Your task to perform on an android device: Open Youtube and go to the subscriptions tab Image 0: 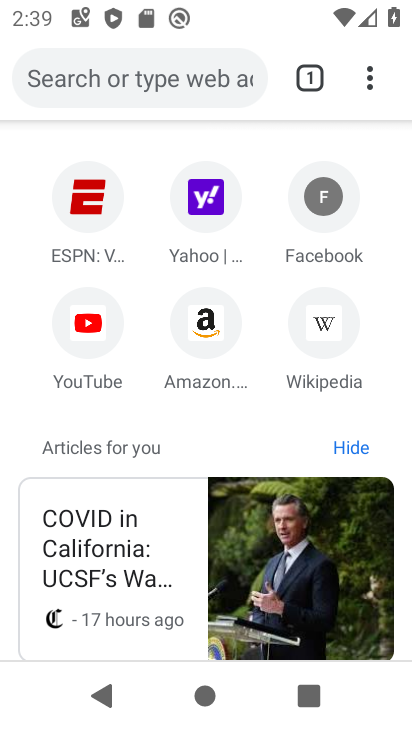
Step 0: press home button
Your task to perform on an android device: Open Youtube and go to the subscriptions tab Image 1: 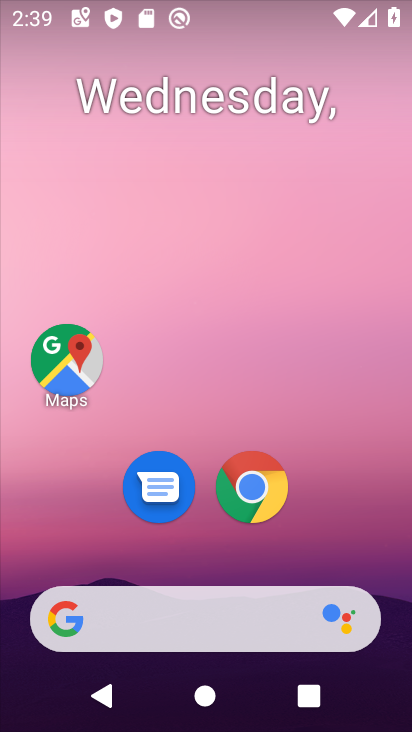
Step 1: drag from (346, 549) to (348, 220)
Your task to perform on an android device: Open Youtube and go to the subscriptions tab Image 2: 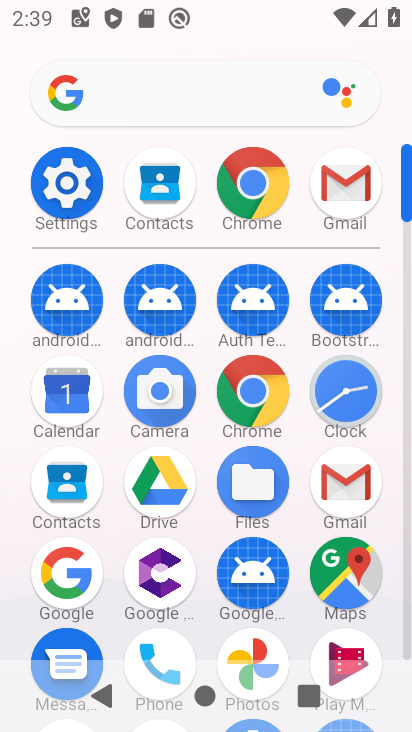
Step 2: drag from (294, 514) to (297, 242)
Your task to perform on an android device: Open Youtube and go to the subscriptions tab Image 3: 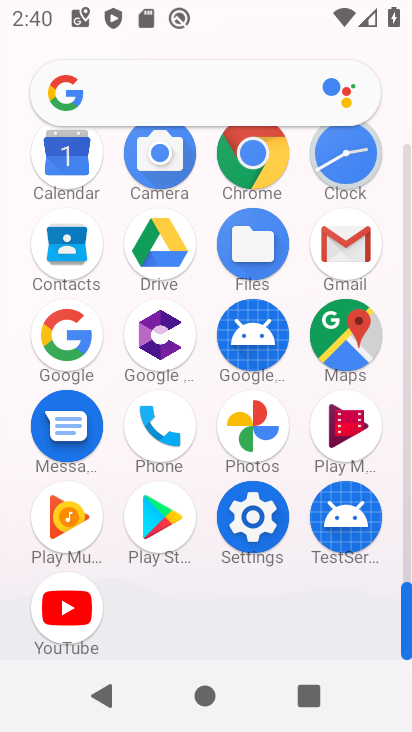
Step 3: click (66, 616)
Your task to perform on an android device: Open Youtube and go to the subscriptions tab Image 4: 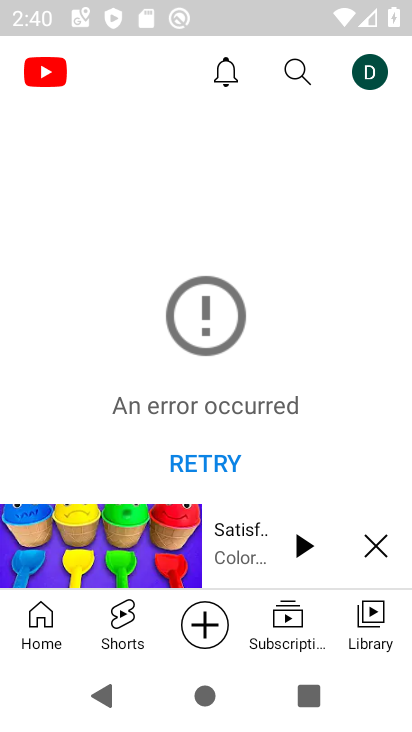
Step 4: click (300, 624)
Your task to perform on an android device: Open Youtube and go to the subscriptions tab Image 5: 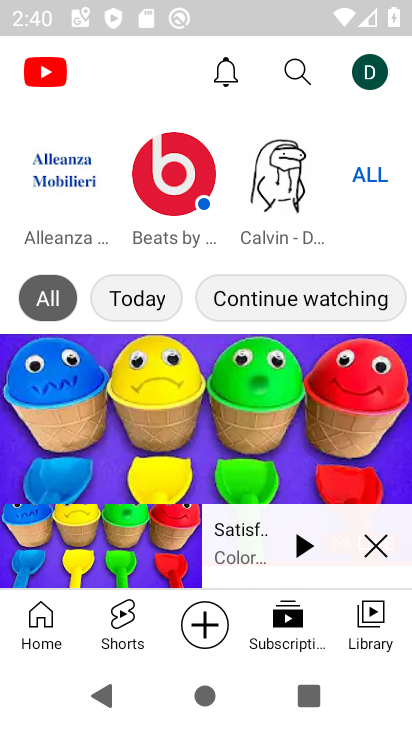
Step 5: task complete